Your task to perform on an android device: Go to internet settings Image 0: 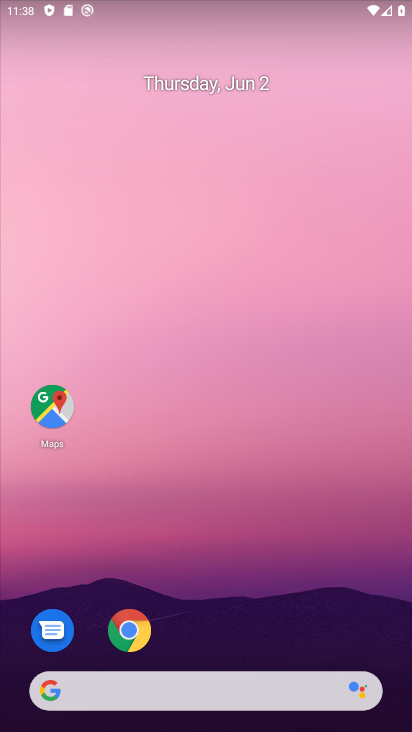
Step 0: click (258, 152)
Your task to perform on an android device: Go to internet settings Image 1: 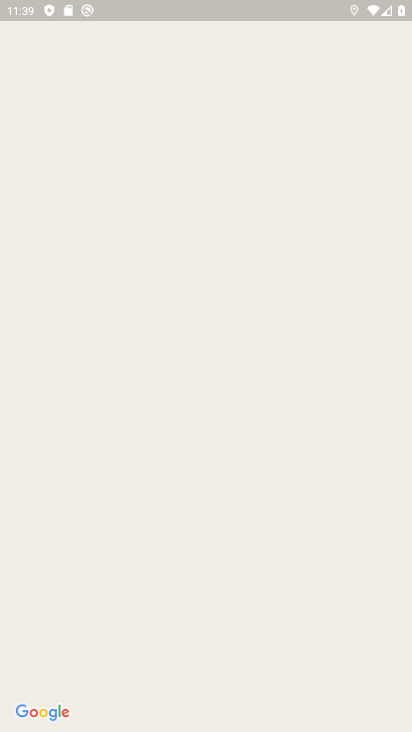
Step 1: press home button
Your task to perform on an android device: Go to internet settings Image 2: 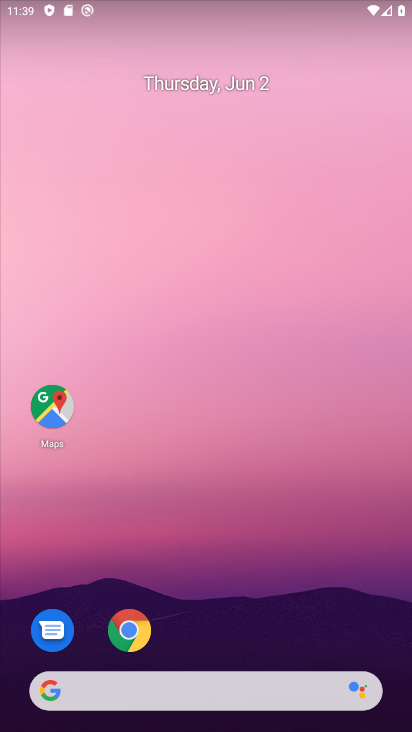
Step 2: drag from (283, 645) to (356, 140)
Your task to perform on an android device: Go to internet settings Image 3: 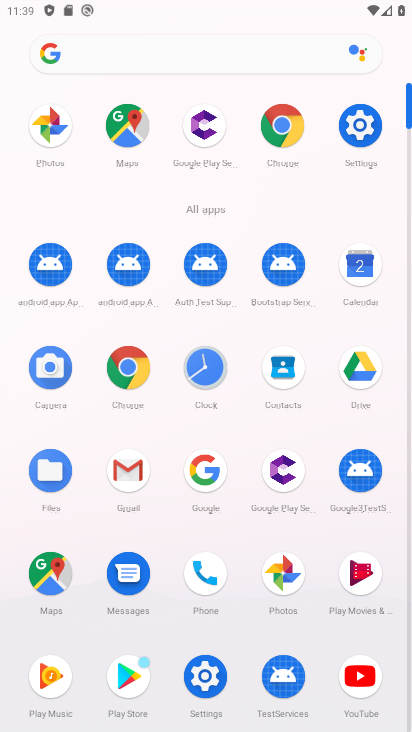
Step 3: click (195, 695)
Your task to perform on an android device: Go to internet settings Image 4: 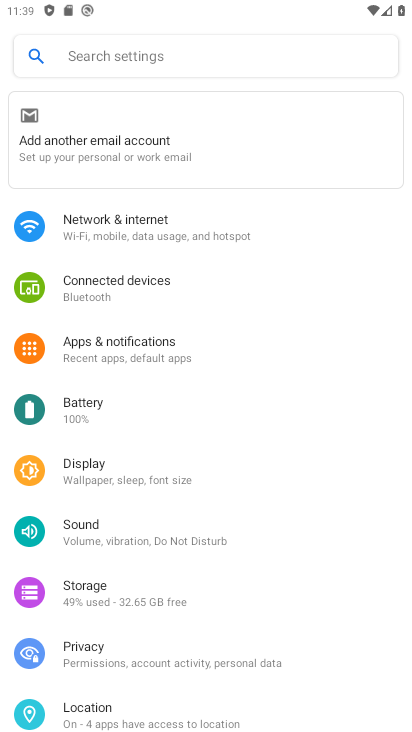
Step 4: click (221, 236)
Your task to perform on an android device: Go to internet settings Image 5: 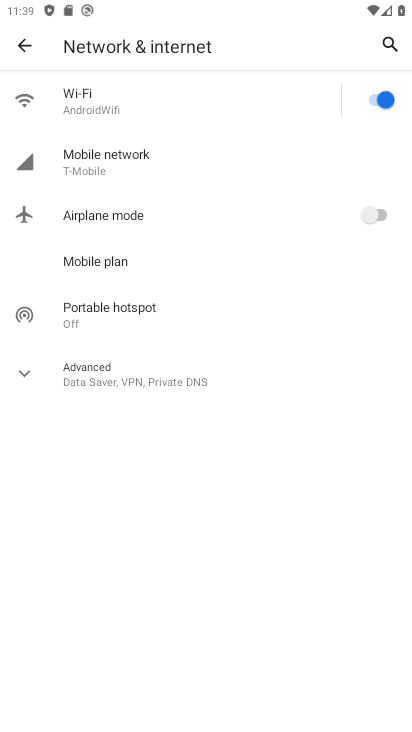
Step 5: click (186, 166)
Your task to perform on an android device: Go to internet settings Image 6: 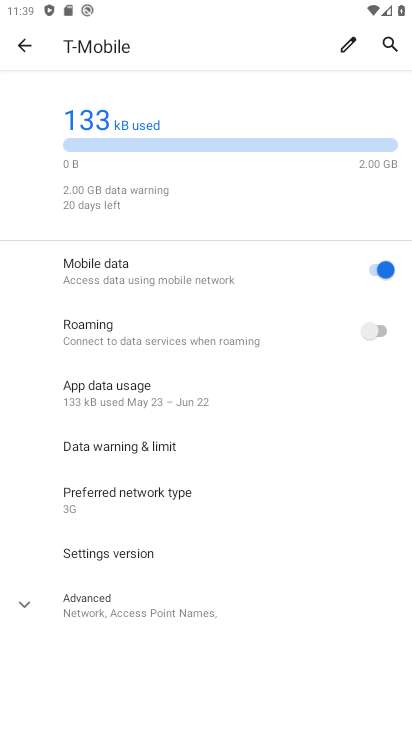
Step 6: task complete